Your task to perform on an android device: Open Chrome and go to settings Image 0: 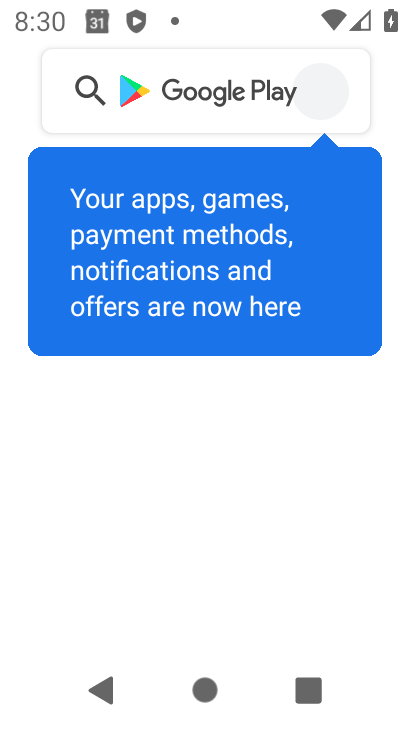
Step 0: press home button
Your task to perform on an android device: Open Chrome and go to settings Image 1: 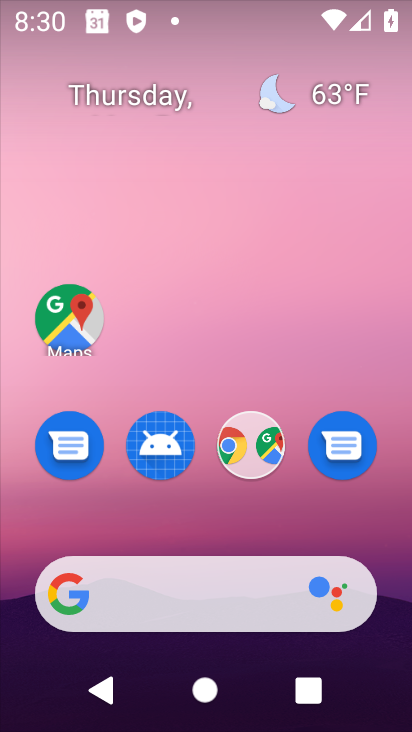
Step 1: drag from (211, 547) to (161, 59)
Your task to perform on an android device: Open Chrome and go to settings Image 2: 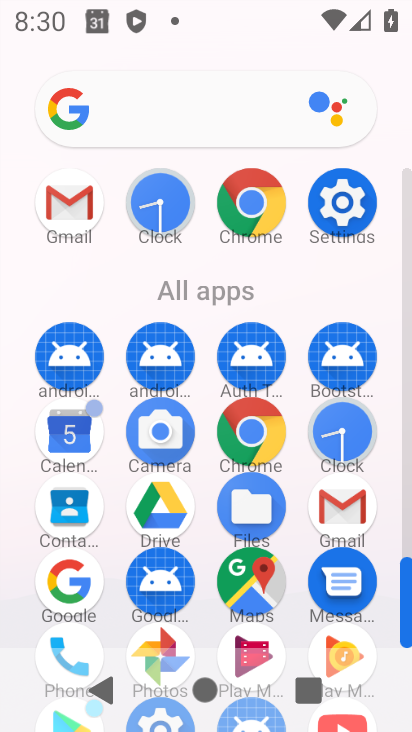
Step 2: click (265, 430)
Your task to perform on an android device: Open Chrome and go to settings Image 3: 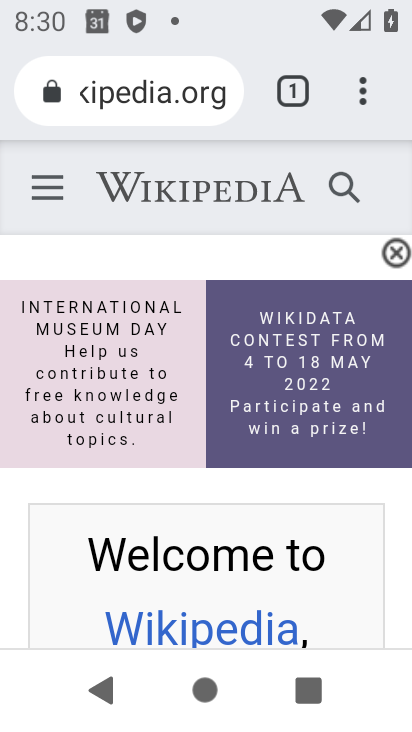
Step 3: click (352, 88)
Your task to perform on an android device: Open Chrome and go to settings Image 4: 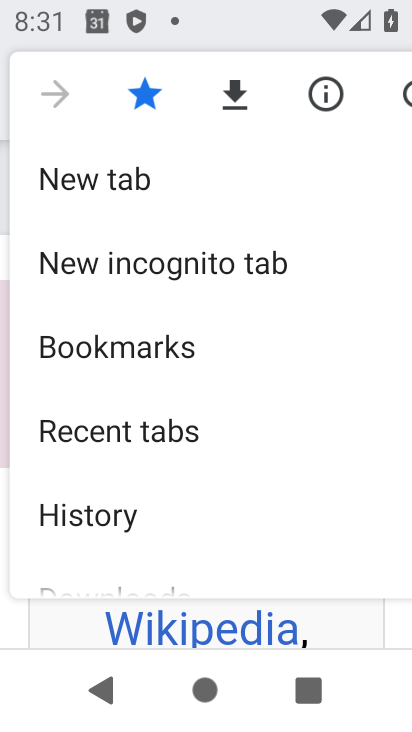
Step 4: drag from (217, 521) to (153, 221)
Your task to perform on an android device: Open Chrome and go to settings Image 5: 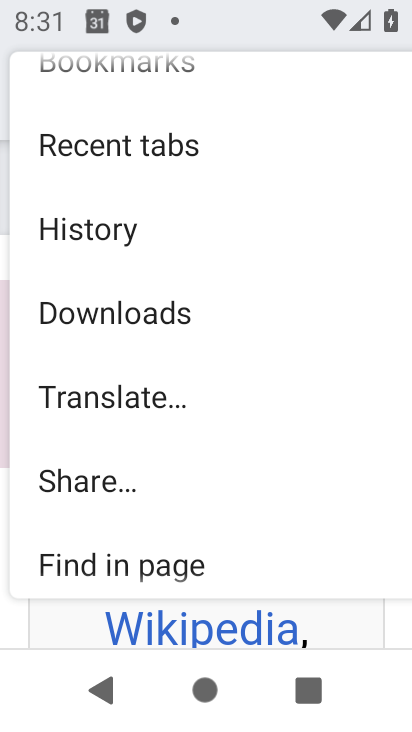
Step 5: drag from (121, 450) to (74, 173)
Your task to perform on an android device: Open Chrome and go to settings Image 6: 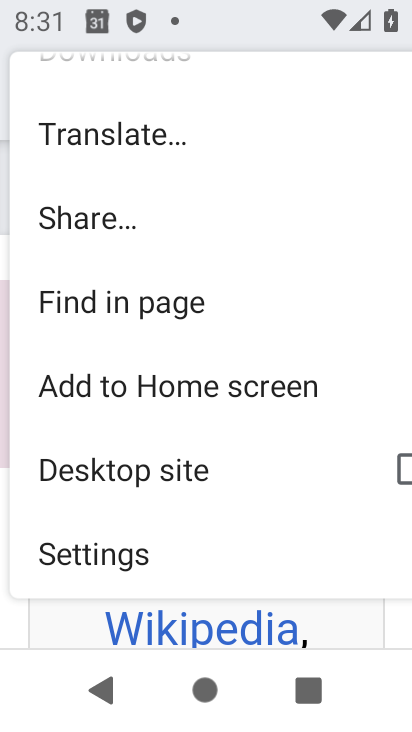
Step 6: click (66, 526)
Your task to perform on an android device: Open Chrome and go to settings Image 7: 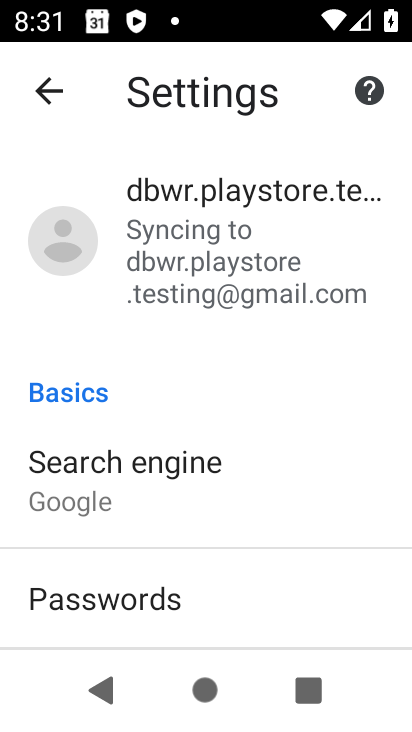
Step 7: task complete